Your task to perform on an android device: install app "PlayWell" Image 0: 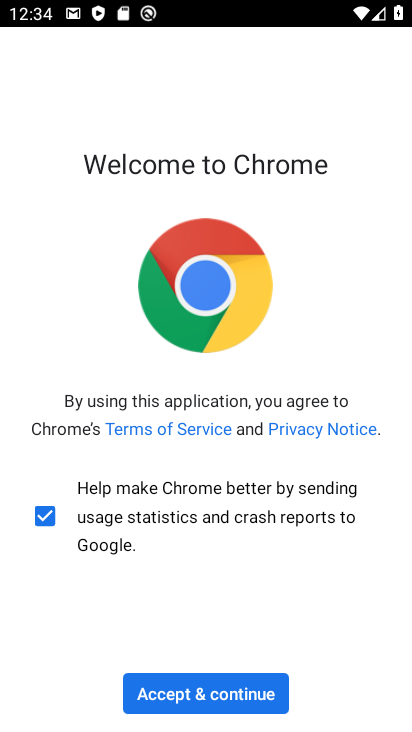
Step 0: press home button
Your task to perform on an android device: install app "PlayWell" Image 1: 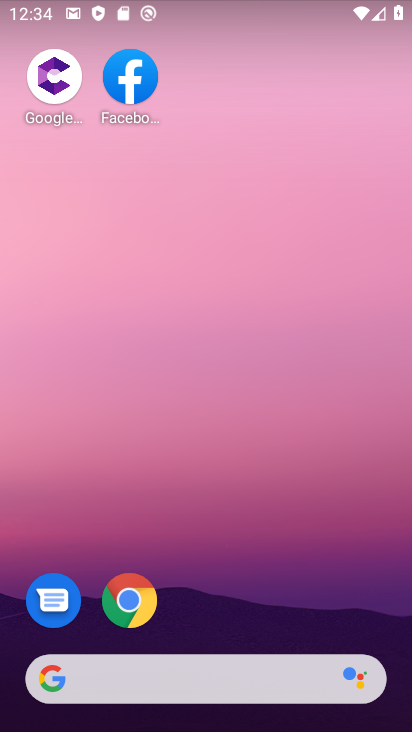
Step 1: drag from (305, 613) to (258, 10)
Your task to perform on an android device: install app "PlayWell" Image 2: 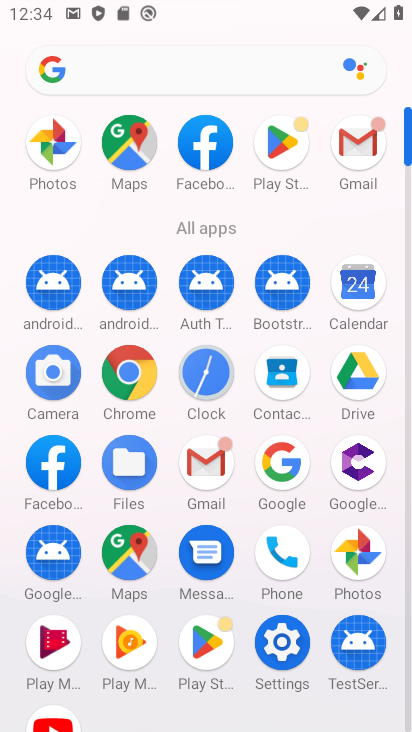
Step 2: click (304, 134)
Your task to perform on an android device: install app "PlayWell" Image 3: 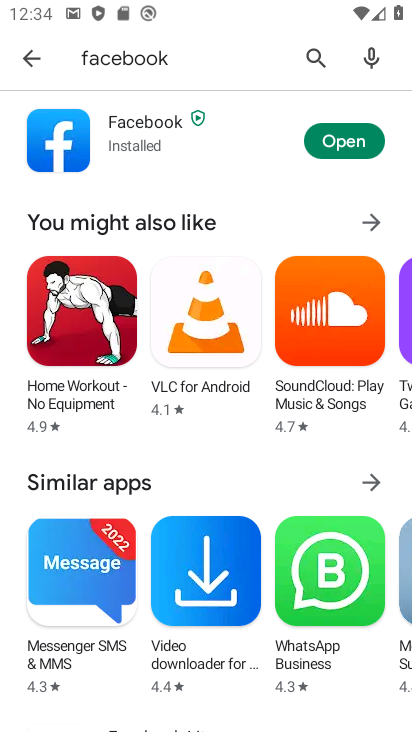
Step 3: click (322, 63)
Your task to perform on an android device: install app "PlayWell" Image 4: 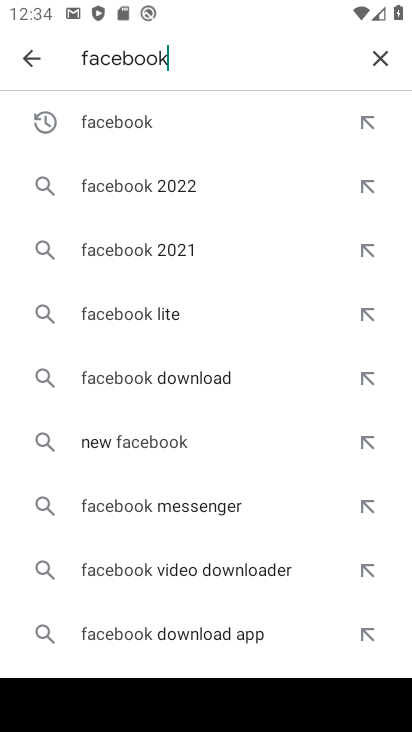
Step 4: click (391, 71)
Your task to perform on an android device: install app "PlayWell" Image 5: 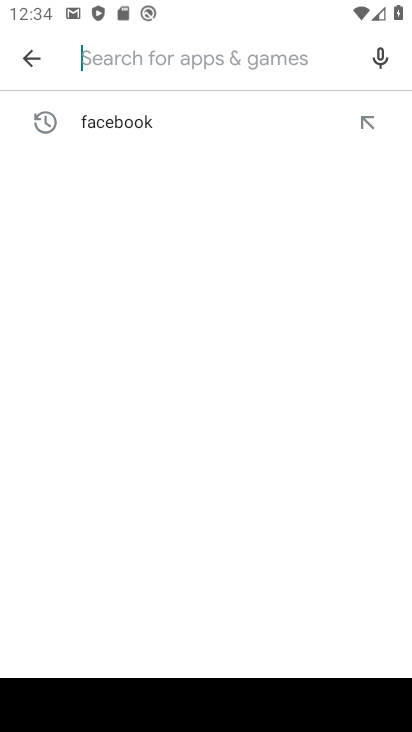
Step 5: type "playweel"
Your task to perform on an android device: install app "PlayWell" Image 6: 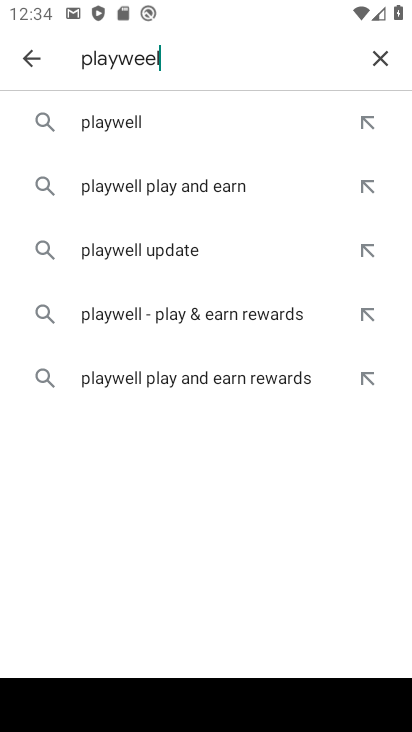
Step 6: click (214, 111)
Your task to perform on an android device: install app "PlayWell" Image 7: 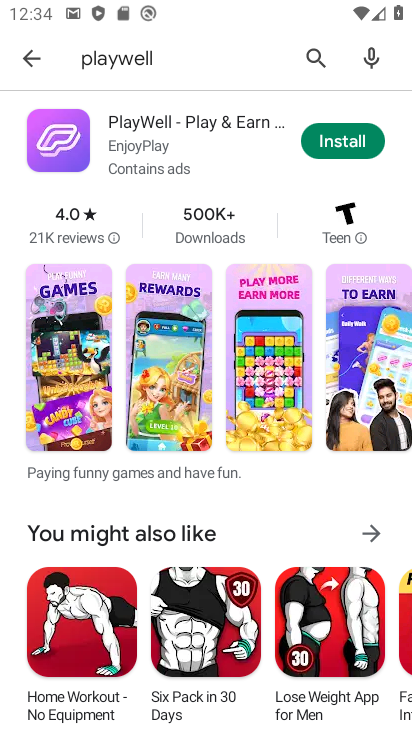
Step 7: click (332, 135)
Your task to perform on an android device: install app "PlayWell" Image 8: 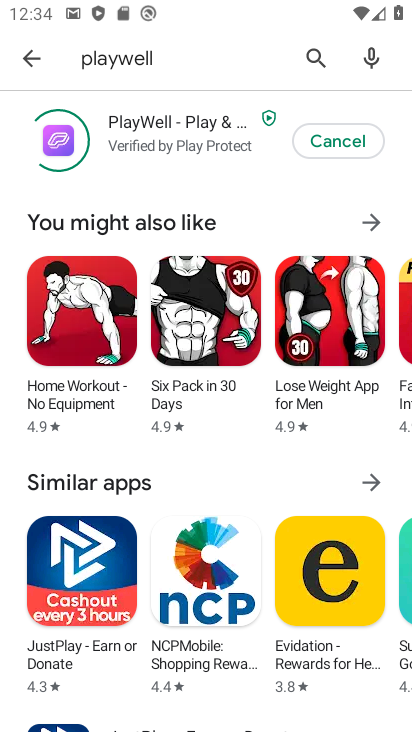
Step 8: task complete